Your task to perform on an android device: Search for pizza restaurants on Maps Image 0: 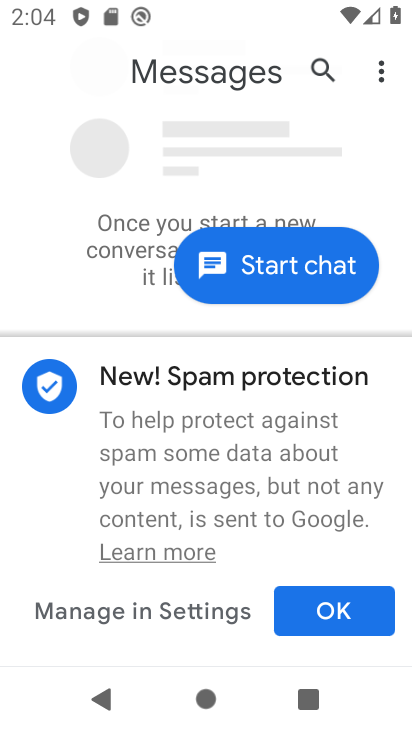
Step 0: press home button
Your task to perform on an android device: Search for pizza restaurants on Maps Image 1: 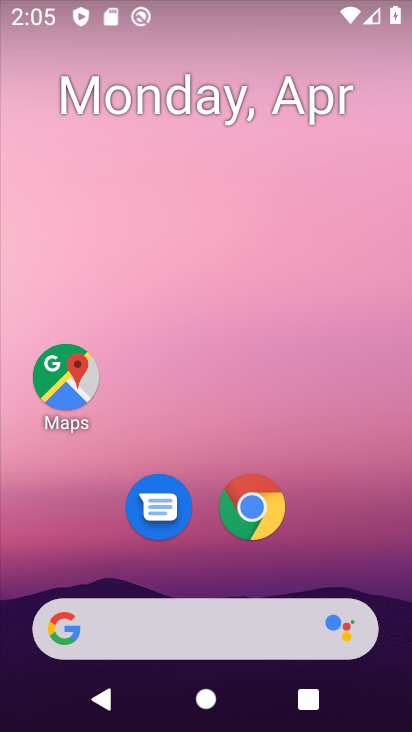
Step 1: click (64, 375)
Your task to perform on an android device: Search for pizza restaurants on Maps Image 2: 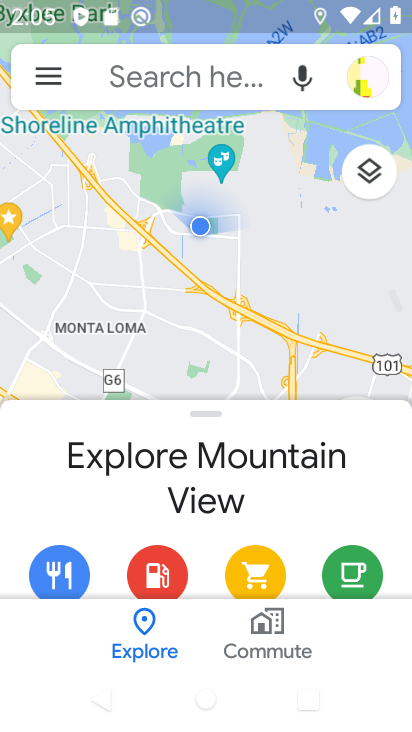
Step 2: click (163, 79)
Your task to perform on an android device: Search for pizza restaurants on Maps Image 3: 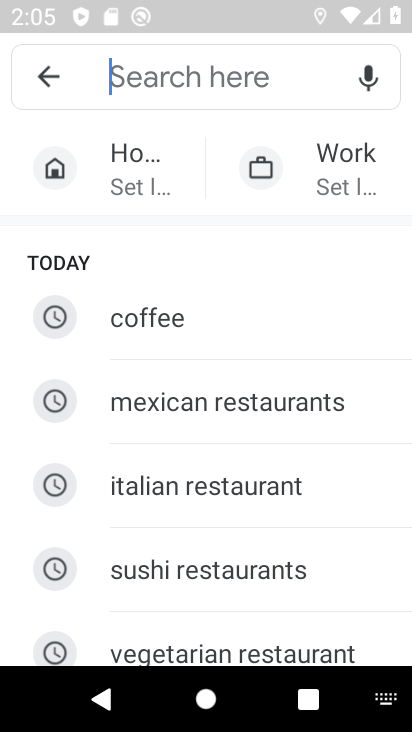
Step 3: type "pizza restaurants"
Your task to perform on an android device: Search for pizza restaurants on Maps Image 4: 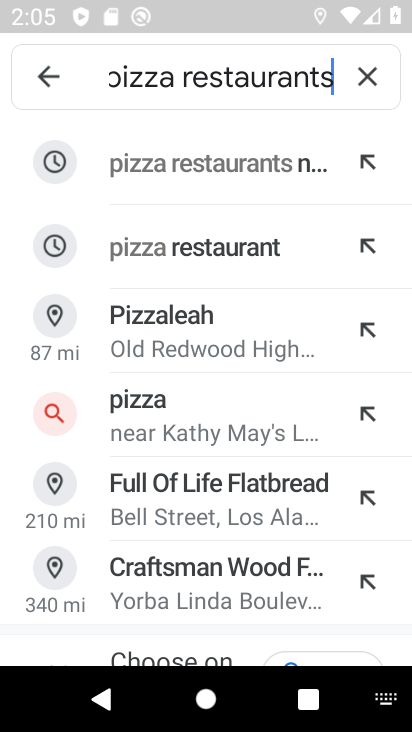
Step 4: click (201, 242)
Your task to perform on an android device: Search for pizza restaurants on Maps Image 5: 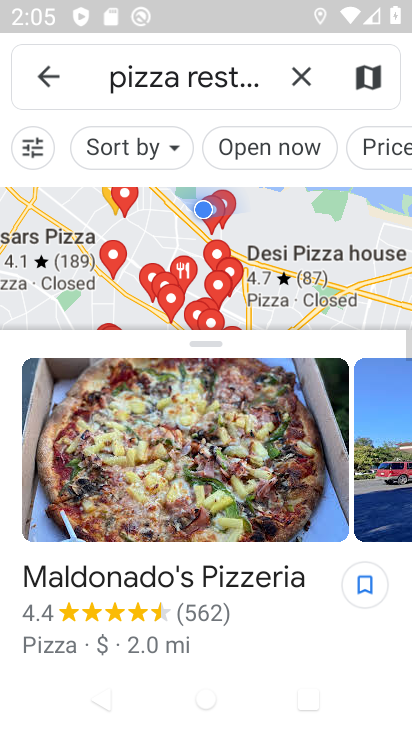
Step 5: task complete